Your task to perform on an android device: change the clock display to digital Image 0: 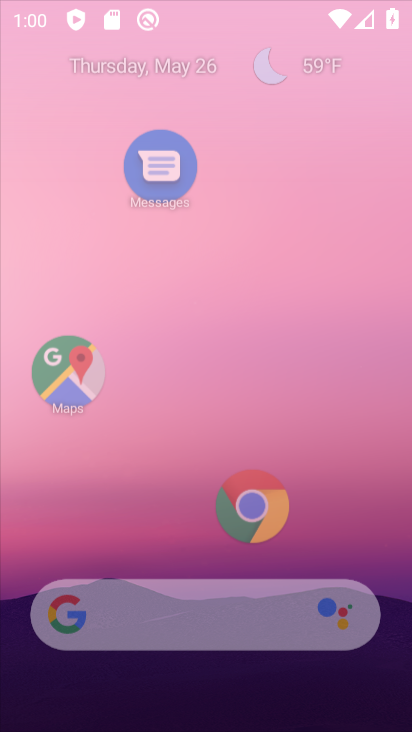
Step 0: click (183, 645)
Your task to perform on an android device: change the clock display to digital Image 1: 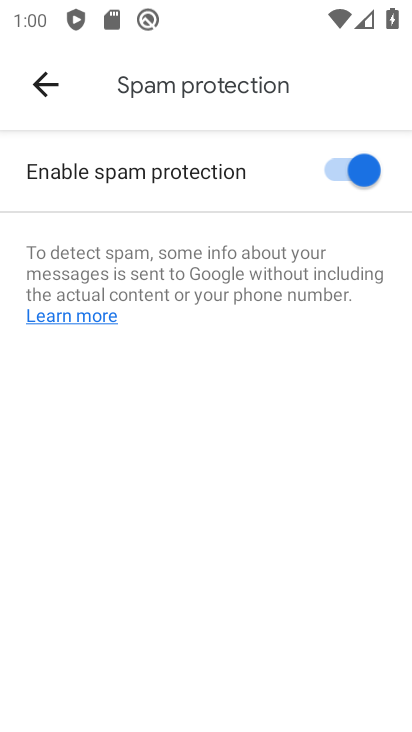
Step 1: press home button
Your task to perform on an android device: change the clock display to digital Image 2: 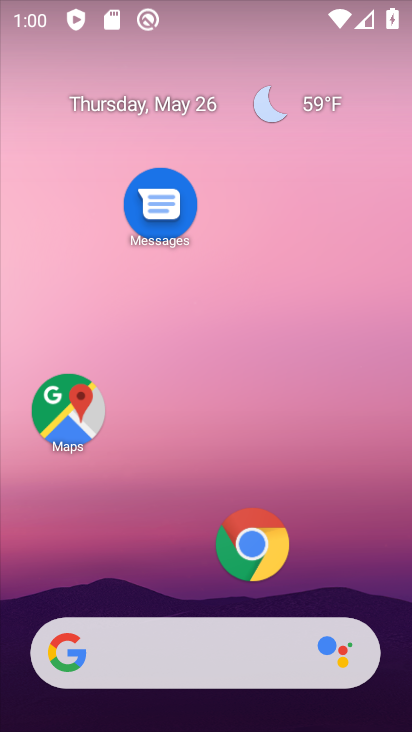
Step 2: drag from (155, 614) to (180, 222)
Your task to perform on an android device: change the clock display to digital Image 3: 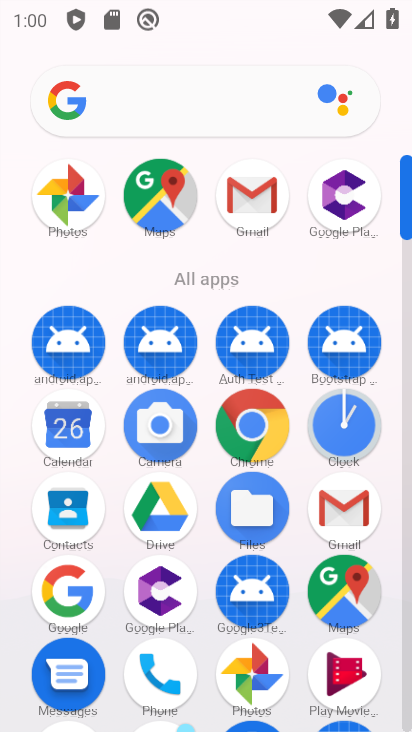
Step 3: click (350, 412)
Your task to perform on an android device: change the clock display to digital Image 4: 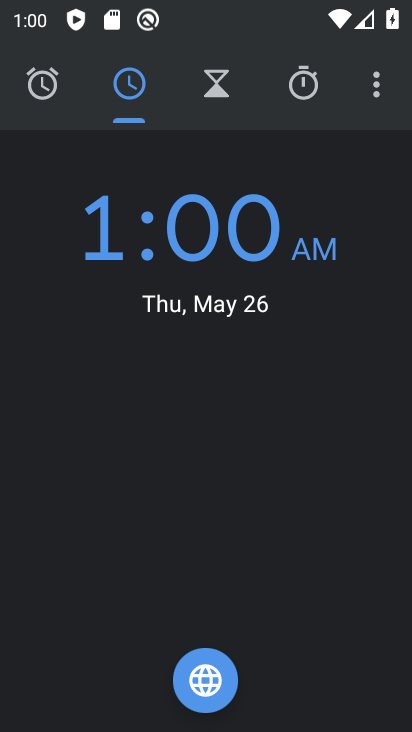
Step 4: click (383, 100)
Your task to perform on an android device: change the clock display to digital Image 5: 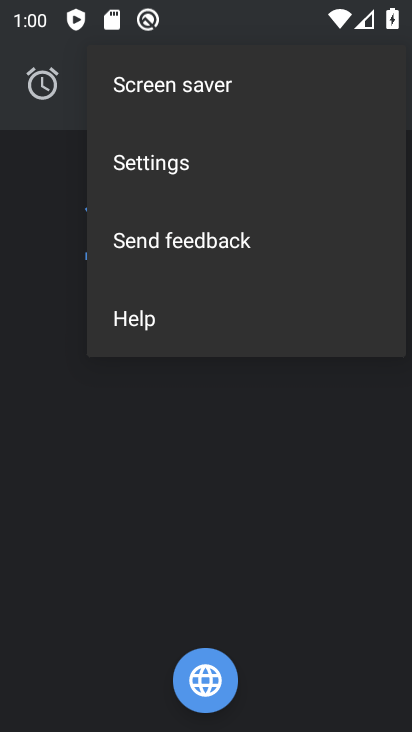
Step 5: click (177, 170)
Your task to perform on an android device: change the clock display to digital Image 6: 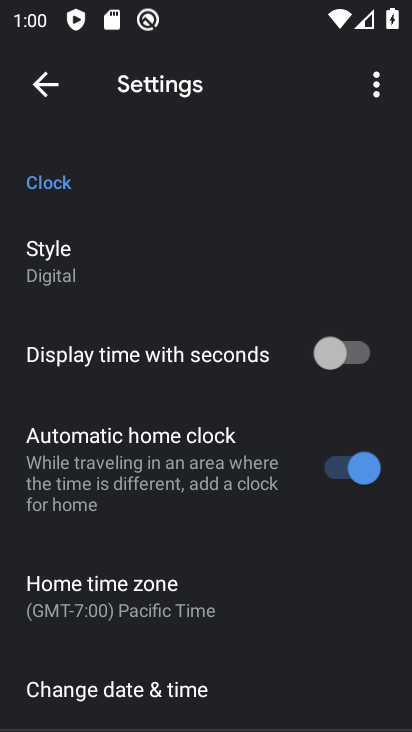
Step 6: click (87, 251)
Your task to perform on an android device: change the clock display to digital Image 7: 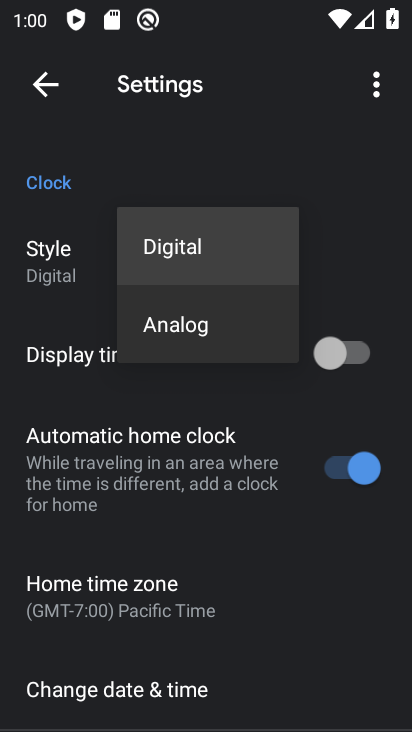
Step 7: task complete